Your task to perform on an android device: Search for sushi restaurants on Maps Image 0: 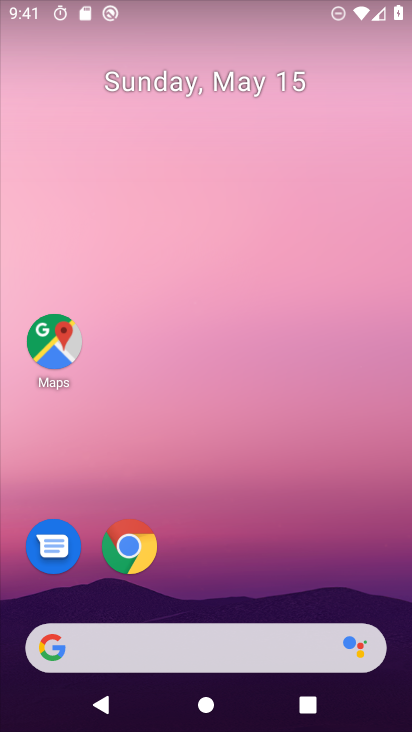
Step 0: click (49, 329)
Your task to perform on an android device: Search for sushi restaurants on Maps Image 1: 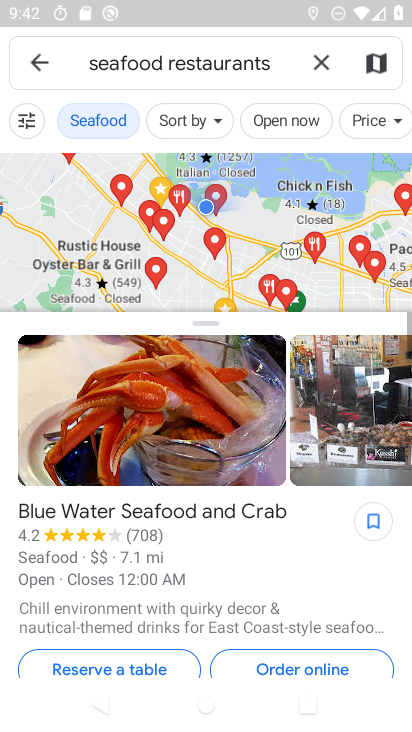
Step 1: click (321, 54)
Your task to perform on an android device: Search for sushi restaurants on Maps Image 2: 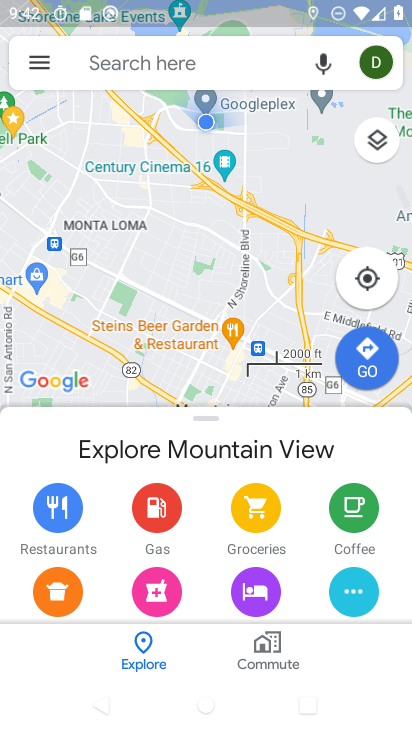
Step 2: click (135, 61)
Your task to perform on an android device: Search for sushi restaurants on Maps Image 3: 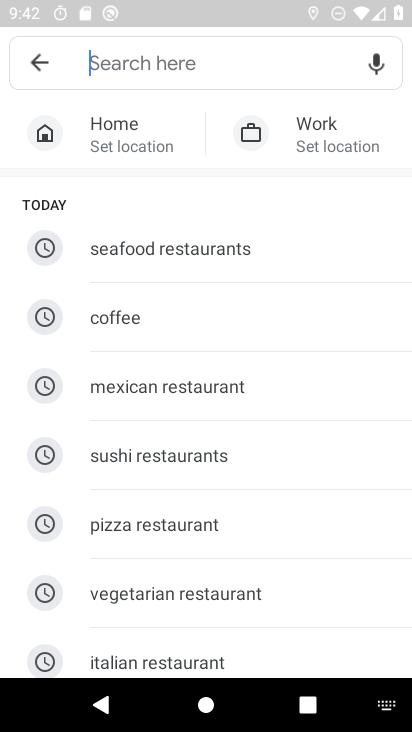
Step 3: click (154, 451)
Your task to perform on an android device: Search for sushi restaurants on Maps Image 4: 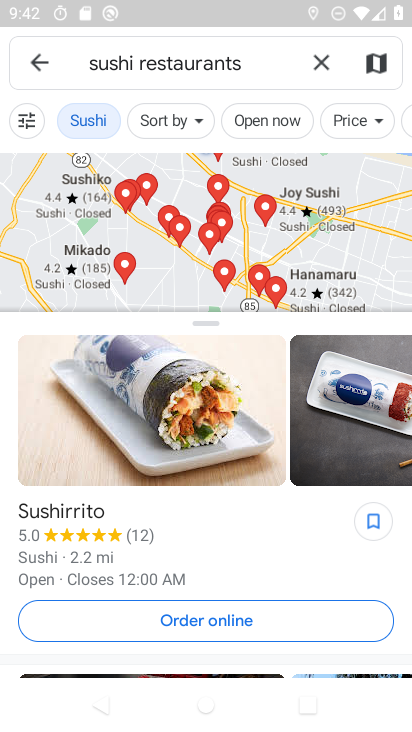
Step 4: task complete